Your task to perform on an android device: turn off translation in the chrome app Image 0: 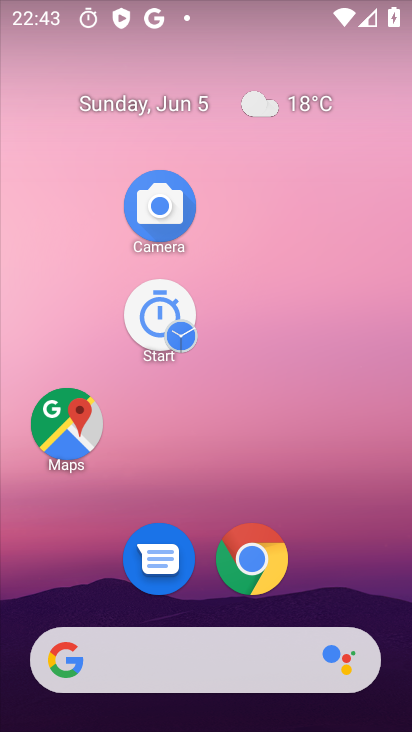
Step 0: drag from (346, 486) to (404, 278)
Your task to perform on an android device: turn off translation in the chrome app Image 1: 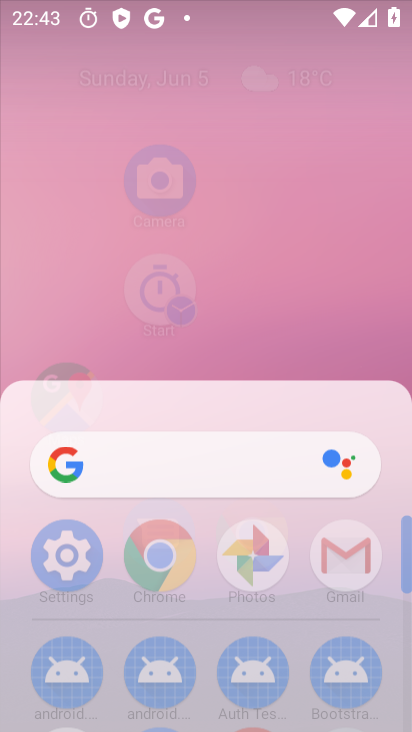
Step 1: press back button
Your task to perform on an android device: turn off translation in the chrome app Image 2: 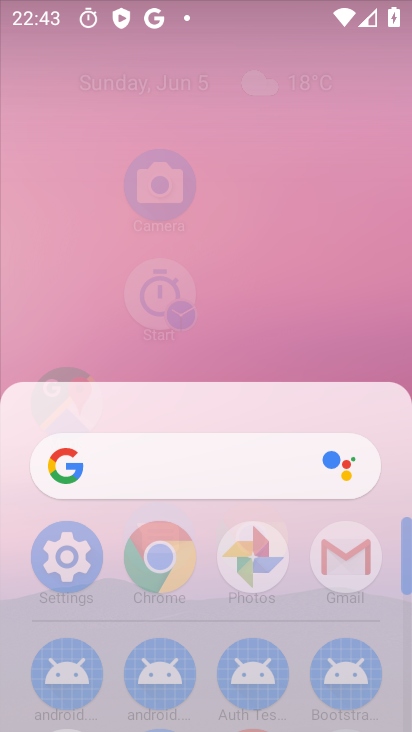
Step 2: drag from (404, 278) to (405, 398)
Your task to perform on an android device: turn off translation in the chrome app Image 3: 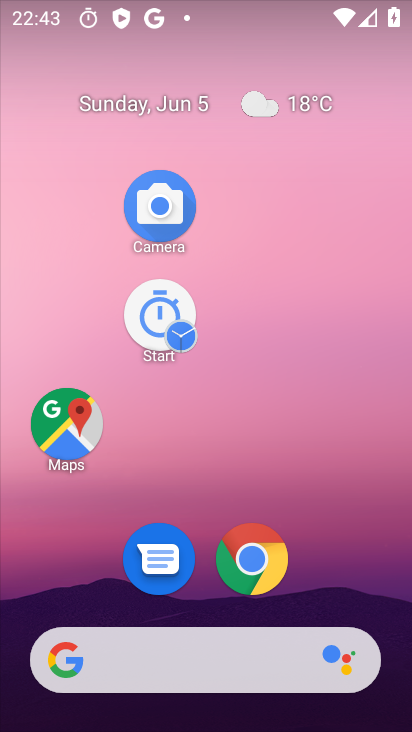
Step 3: drag from (252, 569) to (195, 63)
Your task to perform on an android device: turn off translation in the chrome app Image 4: 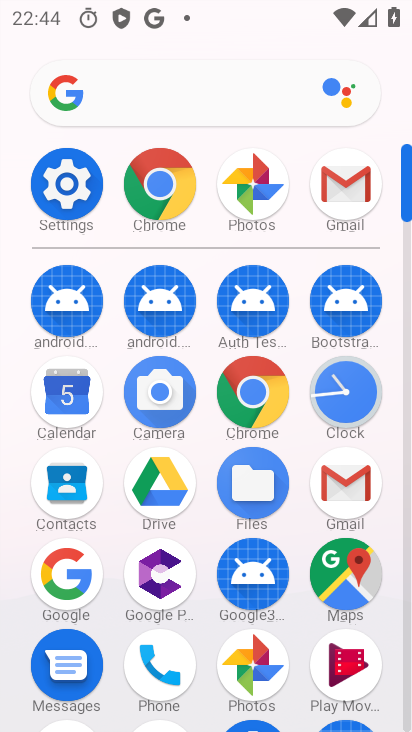
Step 4: click (148, 182)
Your task to perform on an android device: turn off translation in the chrome app Image 5: 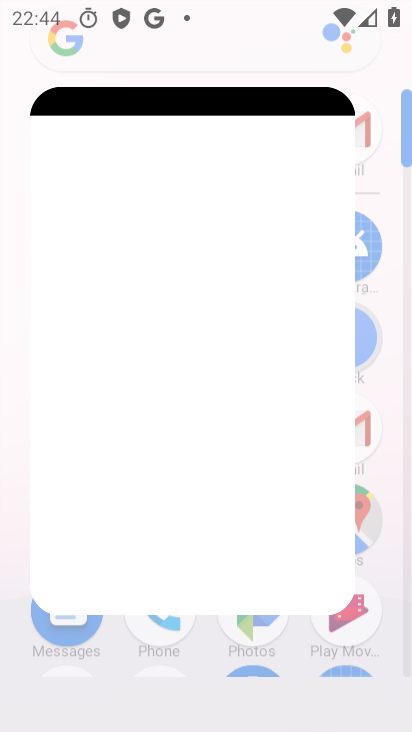
Step 5: click (148, 182)
Your task to perform on an android device: turn off translation in the chrome app Image 6: 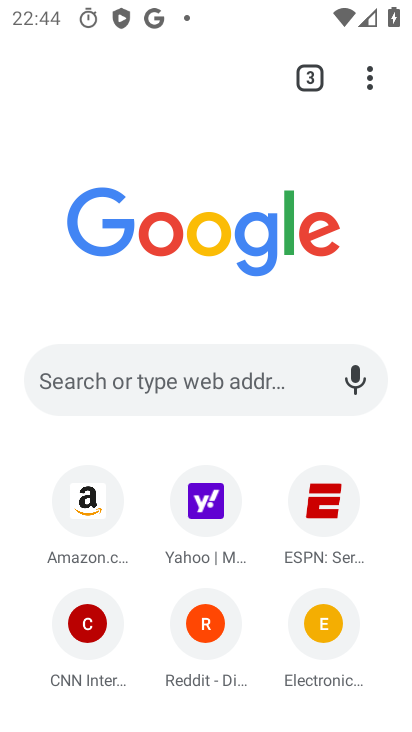
Step 6: drag from (371, 91) to (75, 625)
Your task to perform on an android device: turn off translation in the chrome app Image 7: 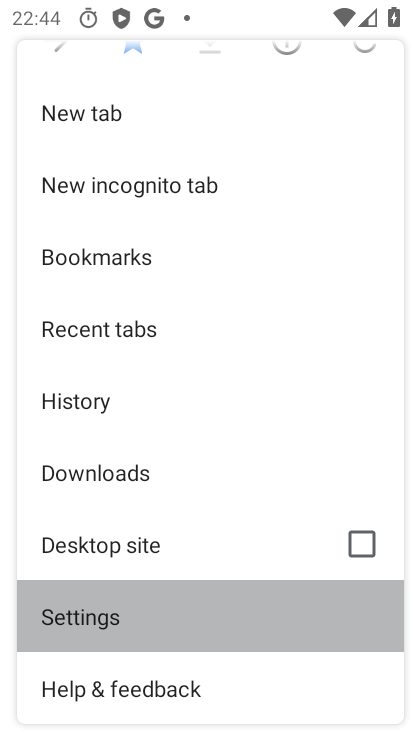
Step 7: click (86, 618)
Your task to perform on an android device: turn off translation in the chrome app Image 8: 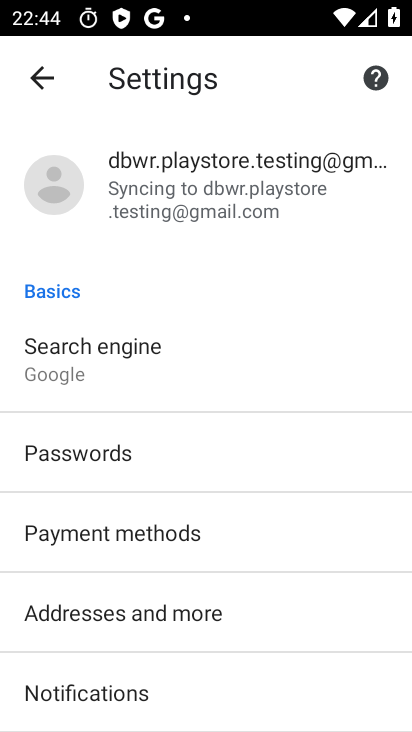
Step 8: drag from (211, 550) to (201, 187)
Your task to perform on an android device: turn off translation in the chrome app Image 9: 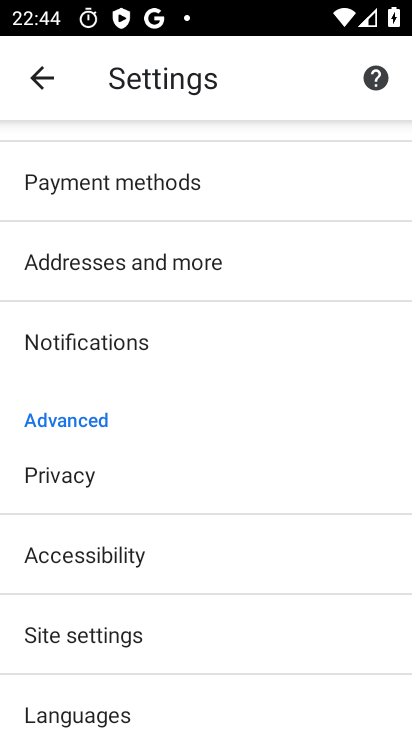
Step 9: click (74, 633)
Your task to perform on an android device: turn off translation in the chrome app Image 10: 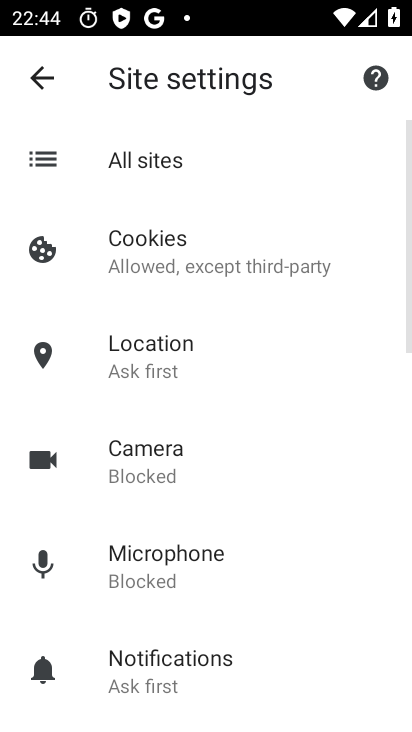
Step 10: drag from (227, 570) to (257, 79)
Your task to perform on an android device: turn off translation in the chrome app Image 11: 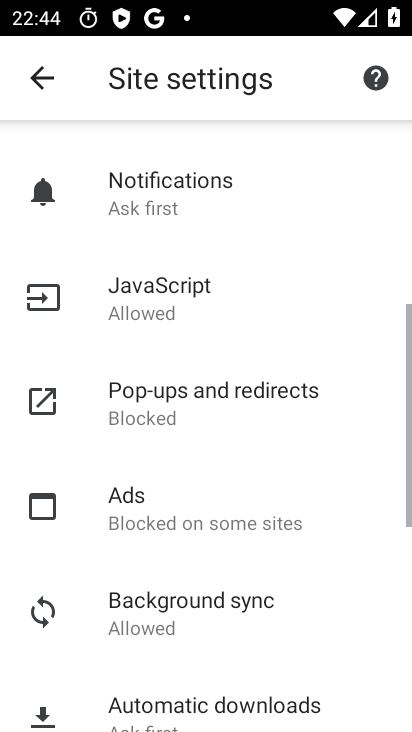
Step 11: drag from (276, 473) to (206, 58)
Your task to perform on an android device: turn off translation in the chrome app Image 12: 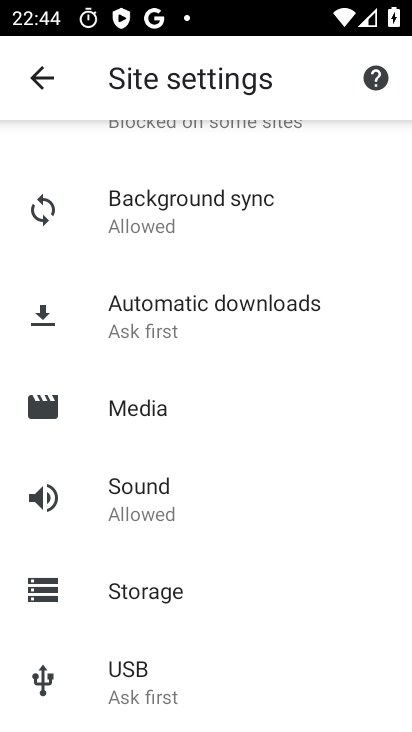
Step 12: drag from (155, 192) to (175, 583)
Your task to perform on an android device: turn off translation in the chrome app Image 13: 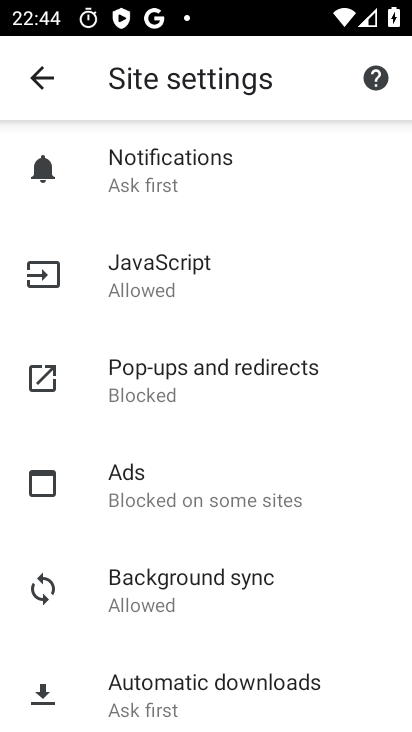
Step 13: click (47, 72)
Your task to perform on an android device: turn off translation in the chrome app Image 14: 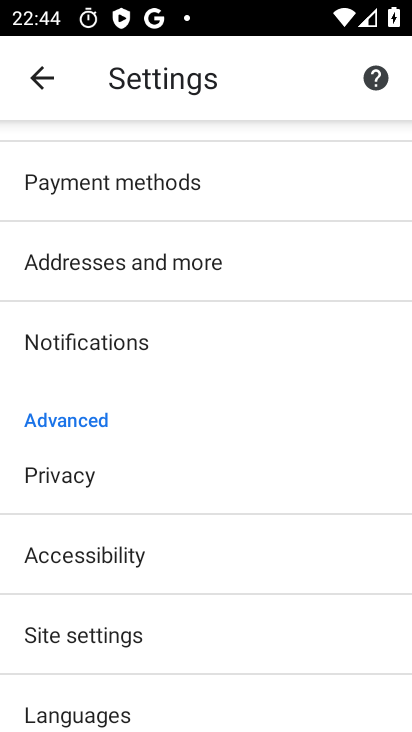
Step 14: click (79, 711)
Your task to perform on an android device: turn off translation in the chrome app Image 15: 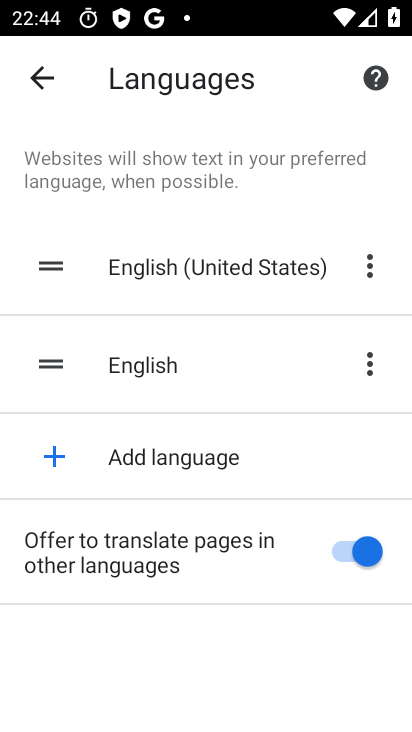
Step 15: click (366, 553)
Your task to perform on an android device: turn off translation in the chrome app Image 16: 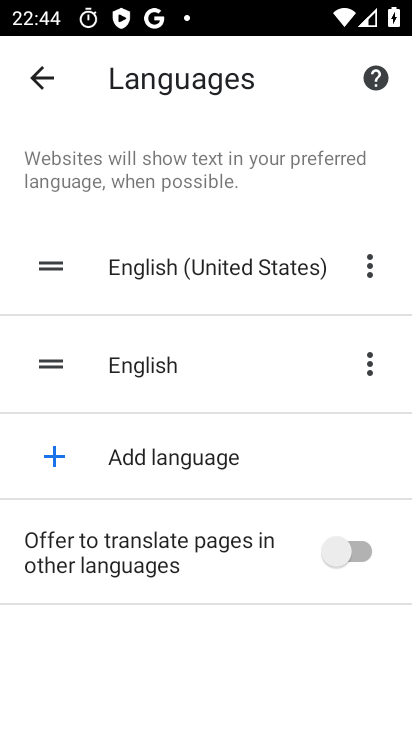
Step 16: task complete